Your task to perform on an android device: turn off priority inbox in the gmail app Image 0: 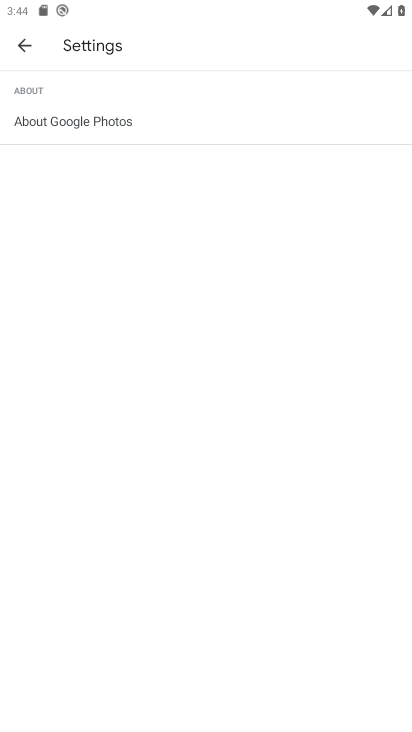
Step 0: press home button
Your task to perform on an android device: turn off priority inbox in the gmail app Image 1: 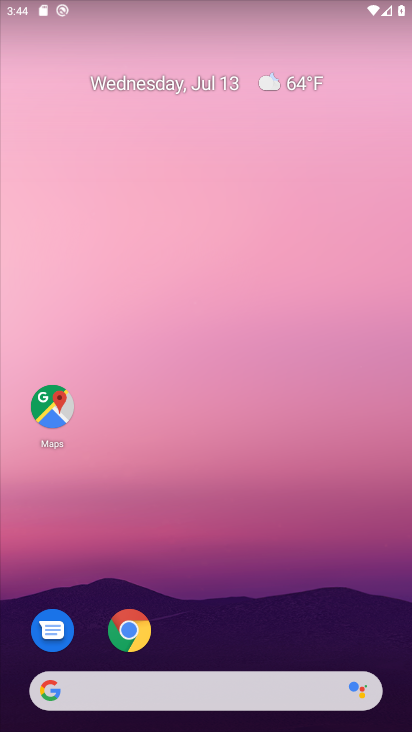
Step 1: drag from (180, 616) to (222, 0)
Your task to perform on an android device: turn off priority inbox in the gmail app Image 2: 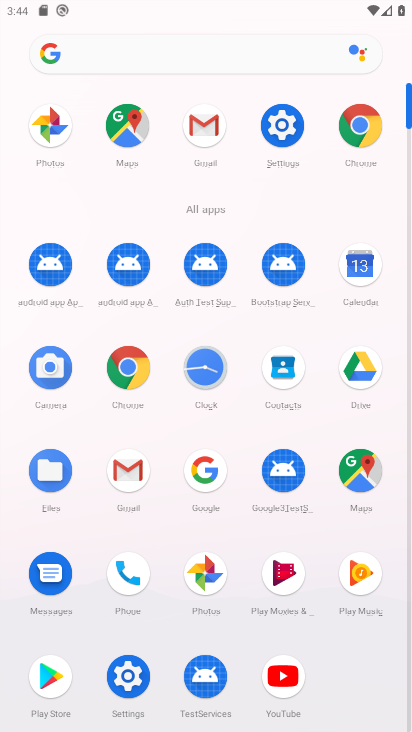
Step 2: click (201, 135)
Your task to perform on an android device: turn off priority inbox in the gmail app Image 3: 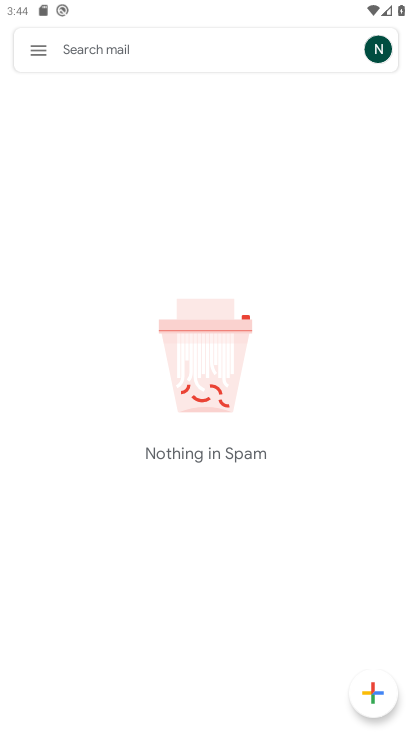
Step 3: click (44, 52)
Your task to perform on an android device: turn off priority inbox in the gmail app Image 4: 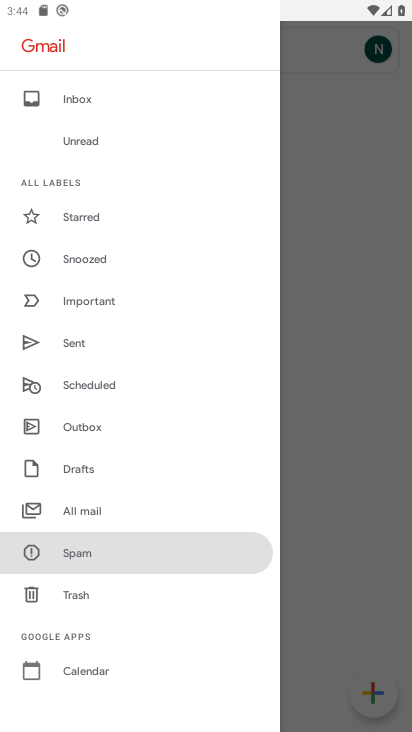
Step 4: drag from (129, 672) to (144, 218)
Your task to perform on an android device: turn off priority inbox in the gmail app Image 5: 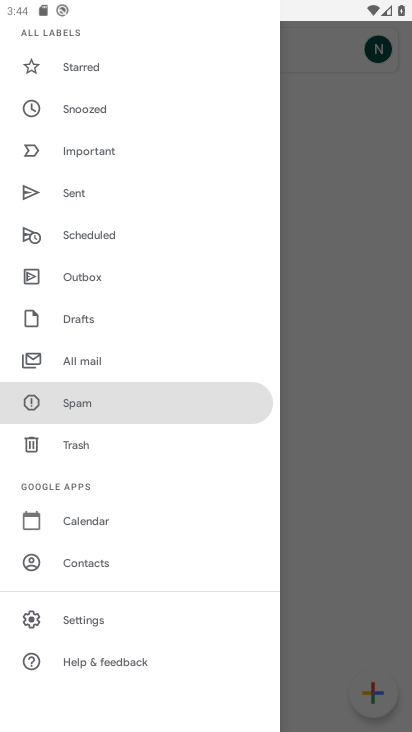
Step 5: click (74, 615)
Your task to perform on an android device: turn off priority inbox in the gmail app Image 6: 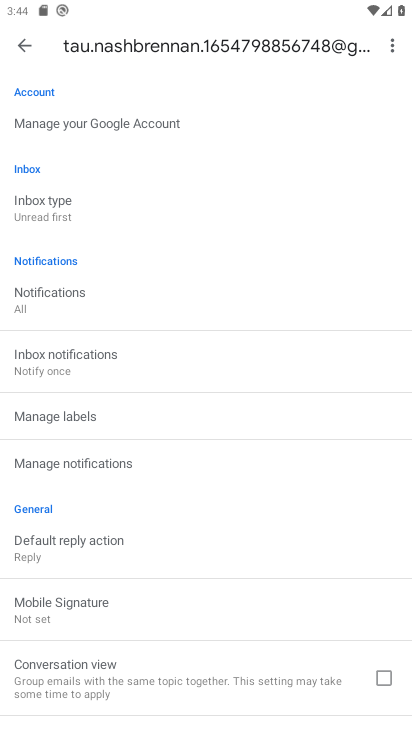
Step 6: click (75, 211)
Your task to perform on an android device: turn off priority inbox in the gmail app Image 7: 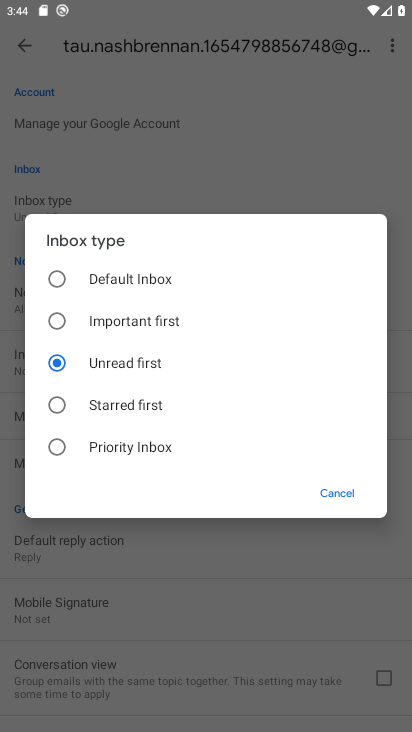
Step 7: click (118, 265)
Your task to perform on an android device: turn off priority inbox in the gmail app Image 8: 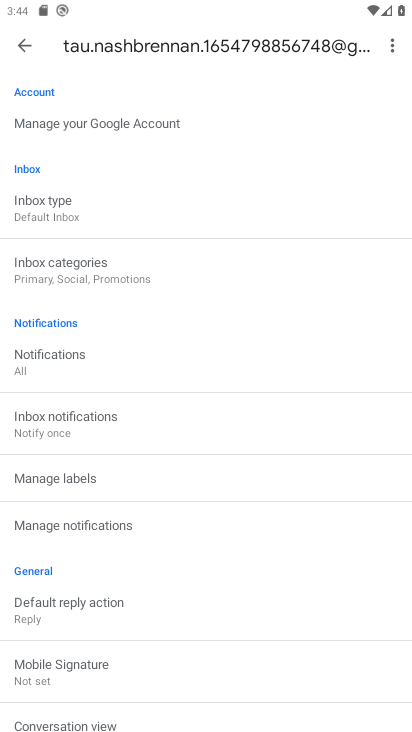
Step 8: task complete